Your task to perform on an android device: change alarm snooze length Image 0: 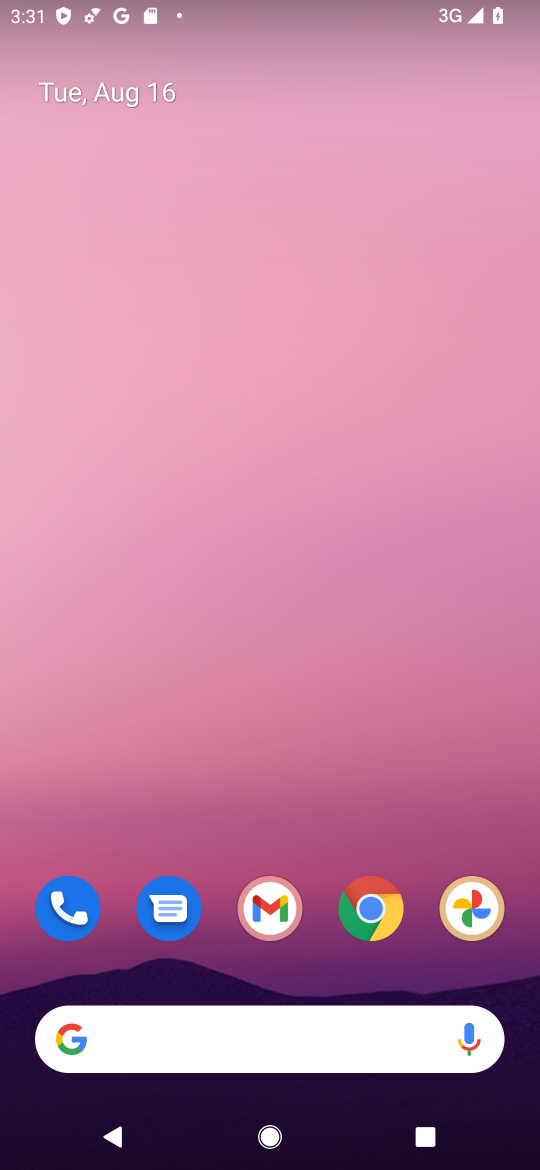
Step 0: drag from (248, 881) to (244, 308)
Your task to perform on an android device: change alarm snooze length Image 1: 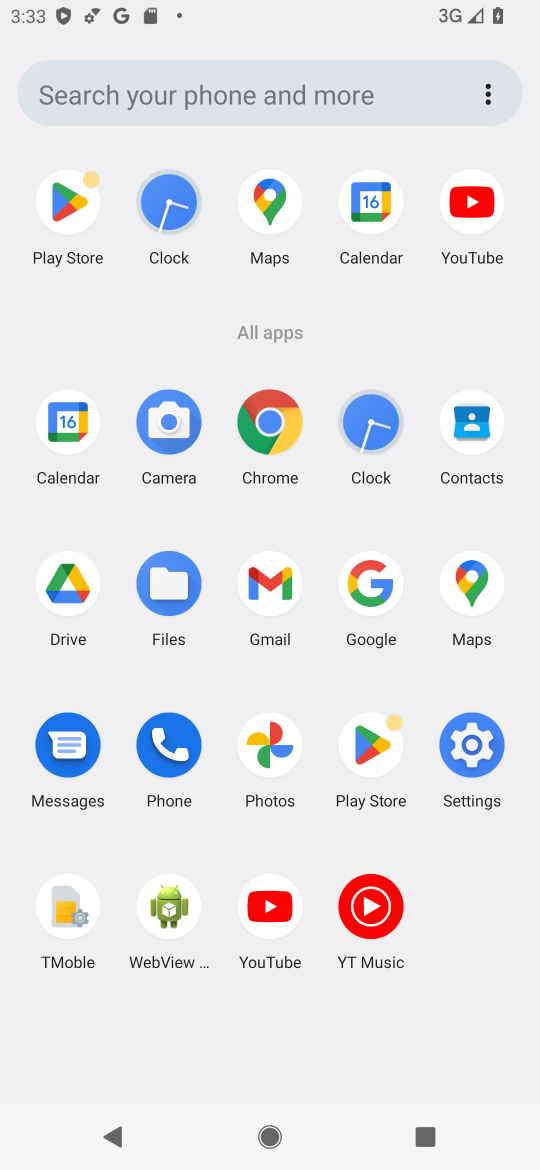
Step 1: click (369, 427)
Your task to perform on an android device: change alarm snooze length Image 2: 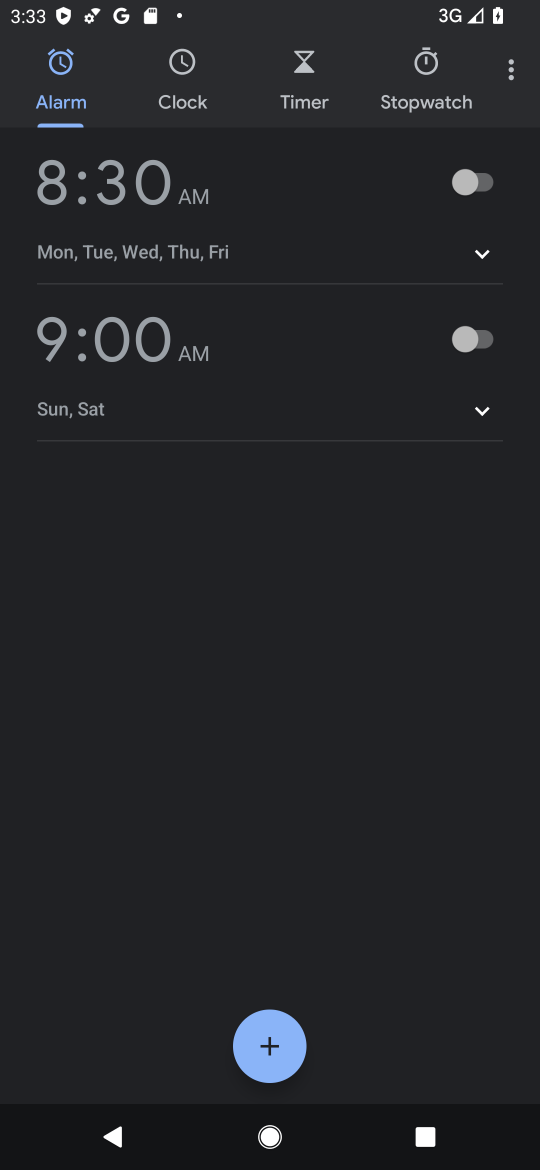
Step 2: click (504, 66)
Your task to perform on an android device: change alarm snooze length Image 3: 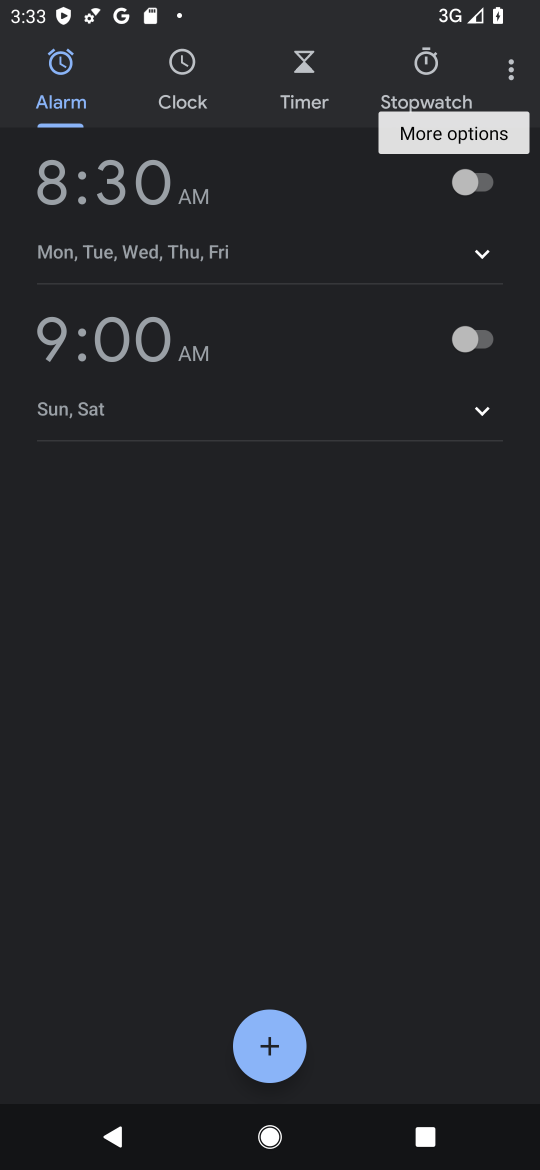
Step 3: click (522, 60)
Your task to perform on an android device: change alarm snooze length Image 4: 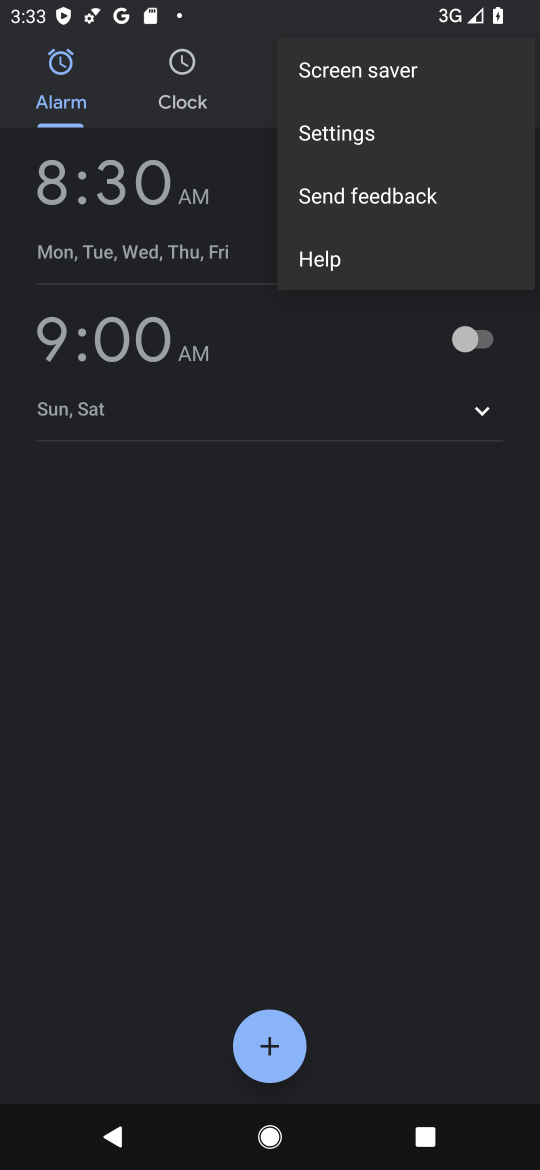
Step 4: click (357, 133)
Your task to perform on an android device: change alarm snooze length Image 5: 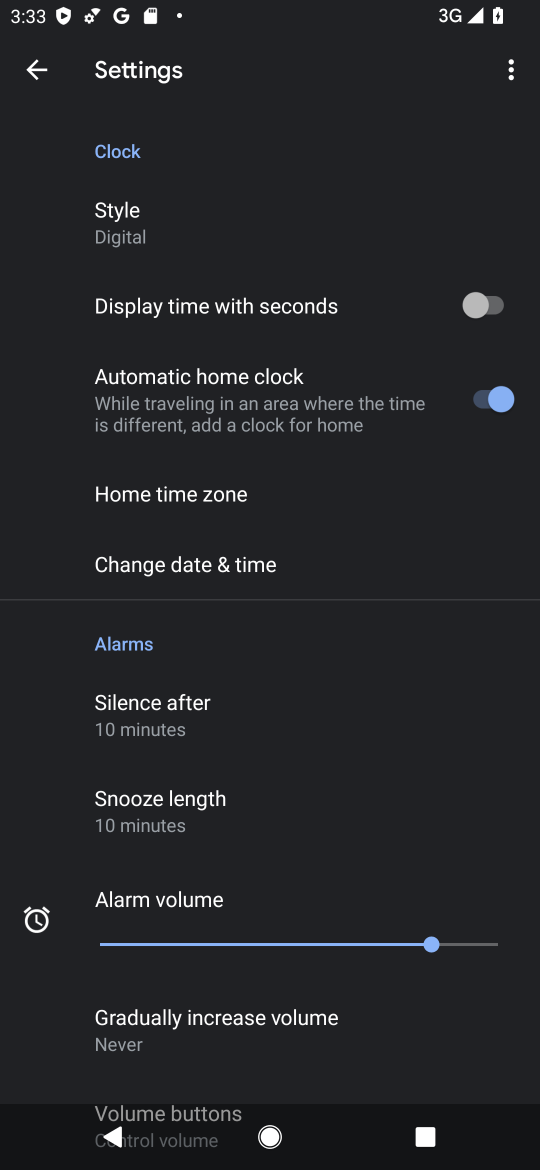
Step 5: click (204, 800)
Your task to perform on an android device: change alarm snooze length Image 6: 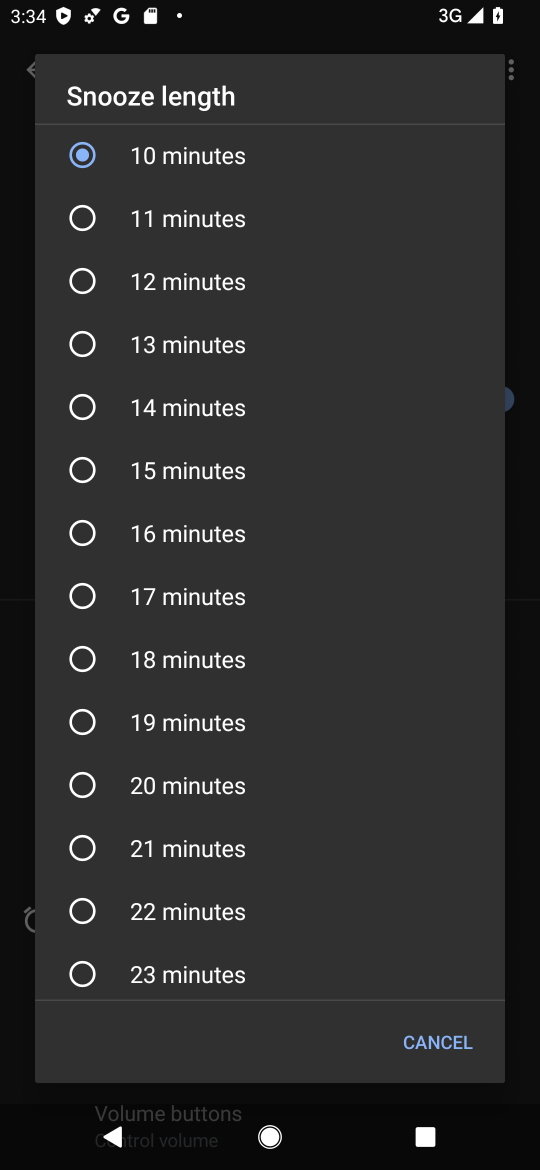
Step 6: click (79, 222)
Your task to perform on an android device: change alarm snooze length Image 7: 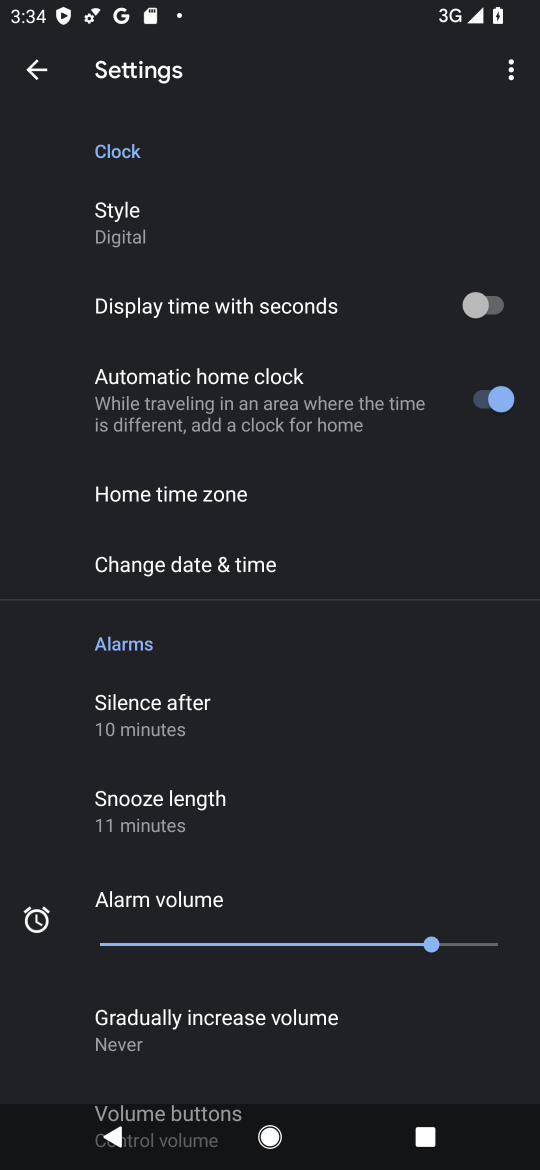
Step 7: task complete